Your task to perform on an android device: Show me popular games on the Play Store Image 0: 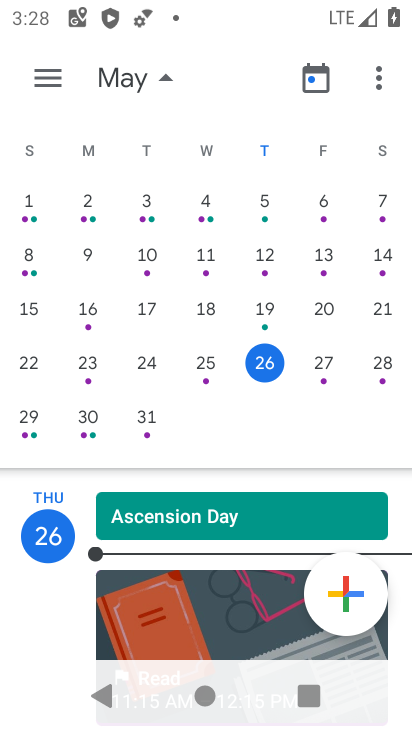
Step 0: press home button
Your task to perform on an android device: Show me popular games on the Play Store Image 1: 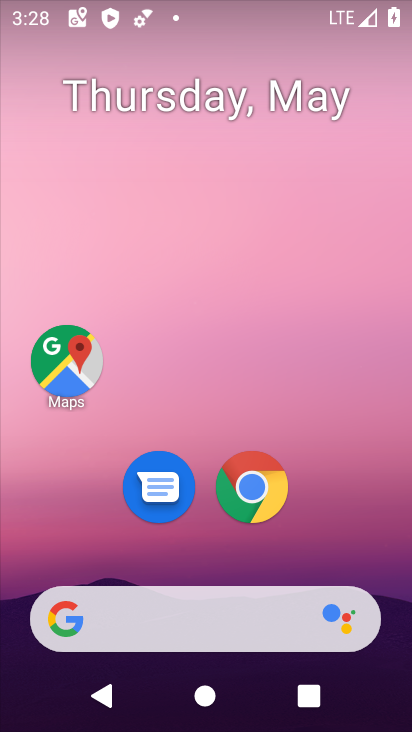
Step 1: drag from (207, 603) to (244, 121)
Your task to perform on an android device: Show me popular games on the Play Store Image 2: 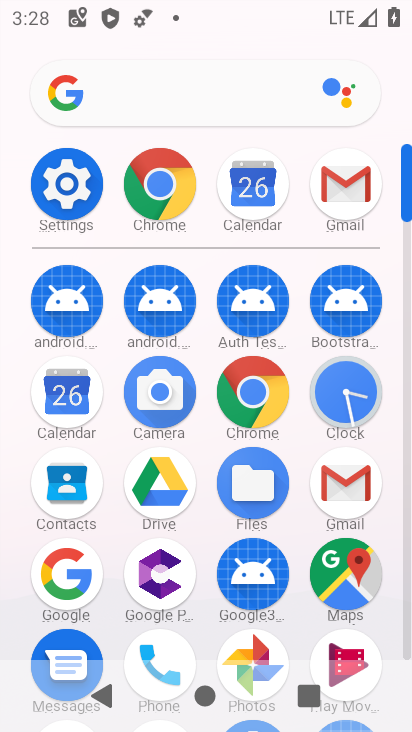
Step 2: drag from (208, 522) to (270, 198)
Your task to perform on an android device: Show me popular games on the Play Store Image 3: 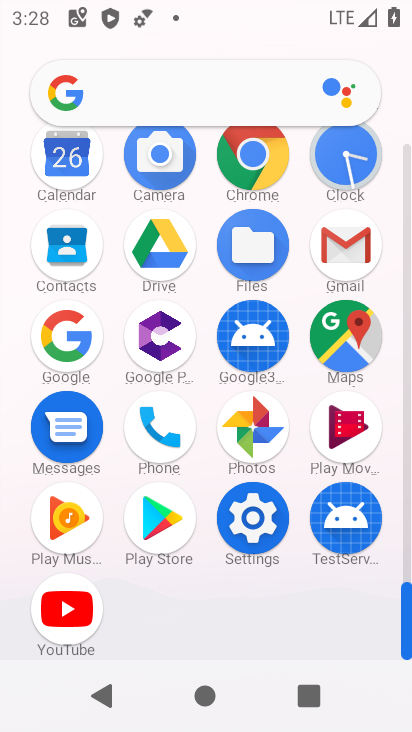
Step 3: click (172, 521)
Your task to perform on an android device: Show me popular games on the Play Store Image 4: 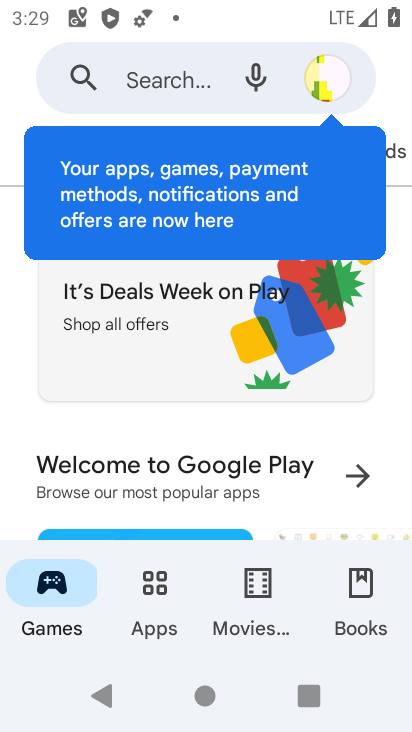
Step 4: task complete